Your task to perform on an android device: turn on javascript in the chrome app Image 0: 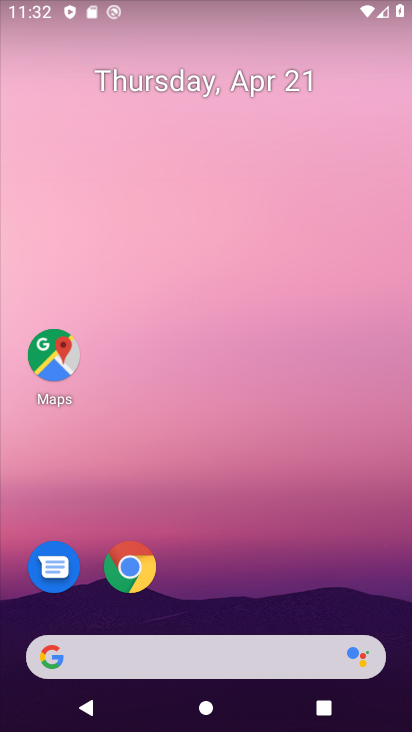
Step 0: click (130, 571)
Your task to perform on an android device: turn on javascript in the chrome app Image 1: 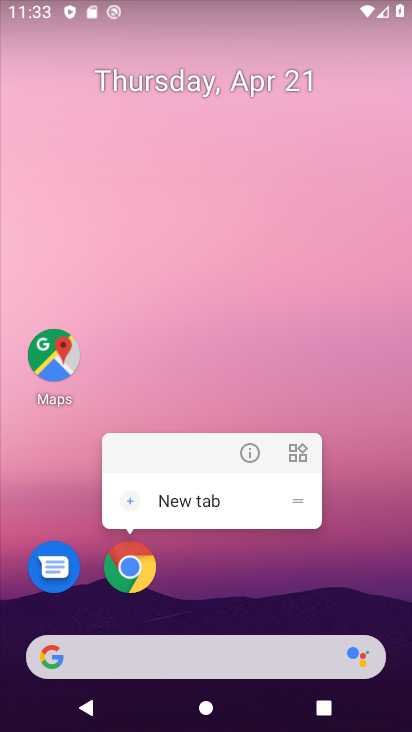
Step 1: click (255, 454)
Your task to perform on an android device: turn on javascript in the chrome app Image 2: 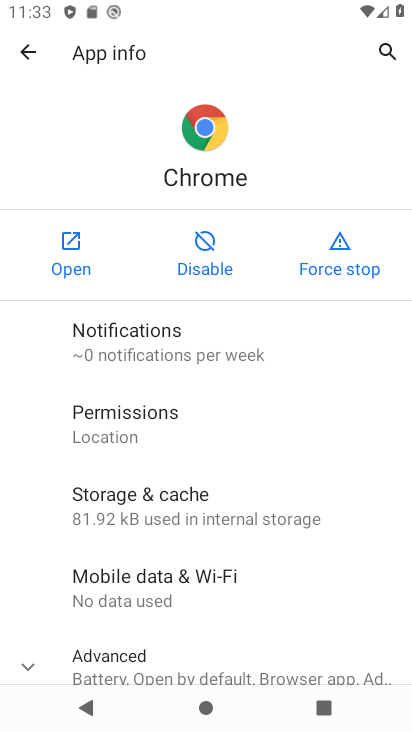
Step 2: click (52, 268)
Your task to perform on an android device: turn on javascript in the chrome app Image 3: 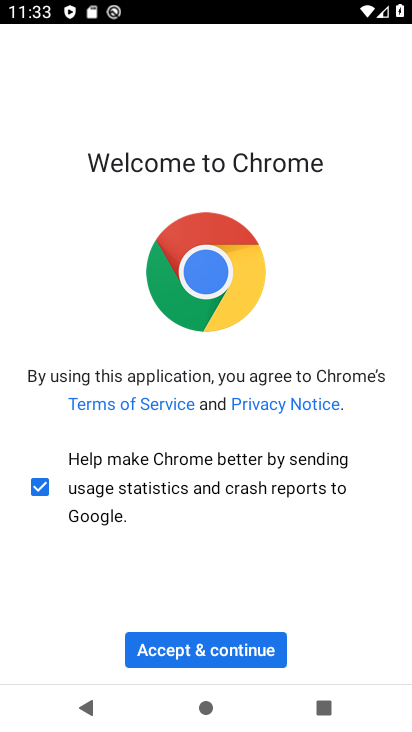
Step 3: click (248, 646)
Your task to perform on an android device: turn on javascript in the chrome app Image 4: 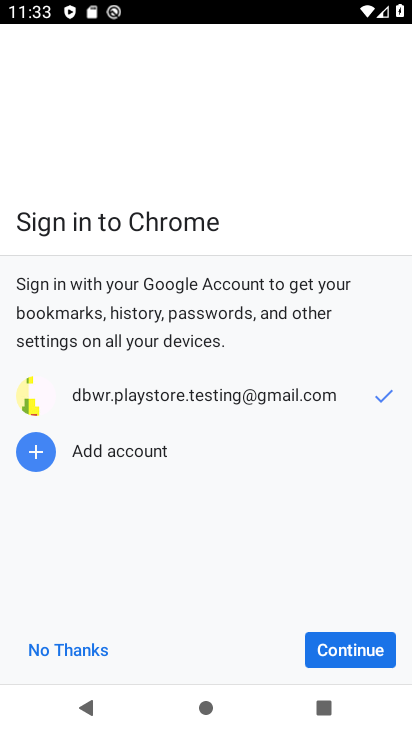
Step 4: click (342, 646)
Your task to perform on an android device: turn on javascript in the chrome app Image 5: 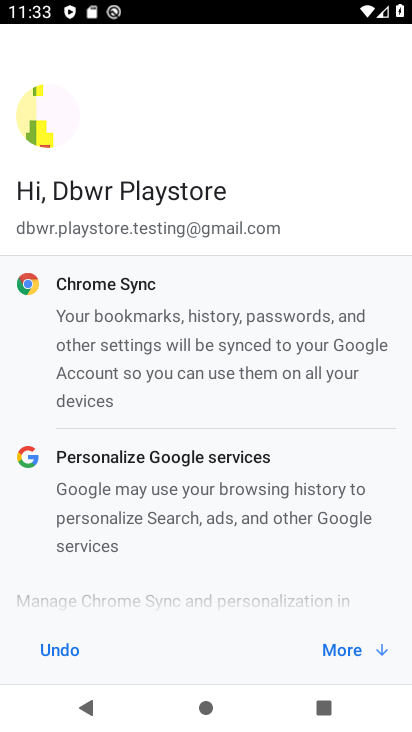
Step 5: click (358, 639)
Your task to perform on an android device: turn on javascript in the chrome app Image 6: 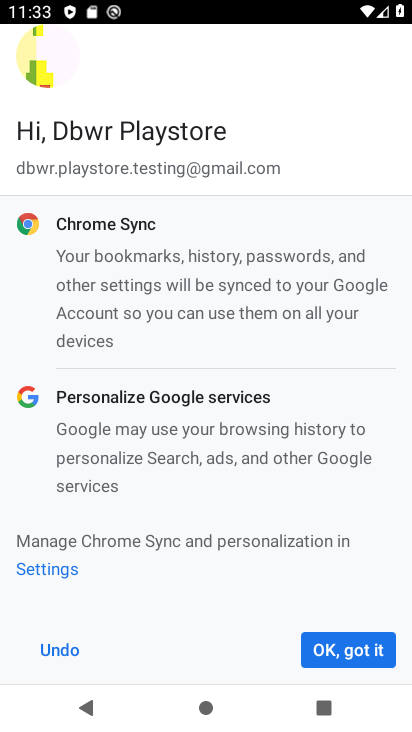
Step 6: click (366, 647)
Your task to perform on an android device: turn on javascript in the chrome app Image 7: 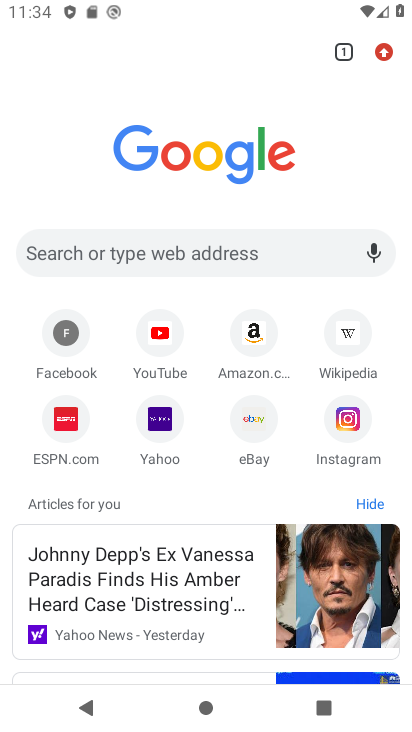
Step 7: click (383, 51)
Your task to perform on an android device: turn on javascript in the chrome app Image 8: 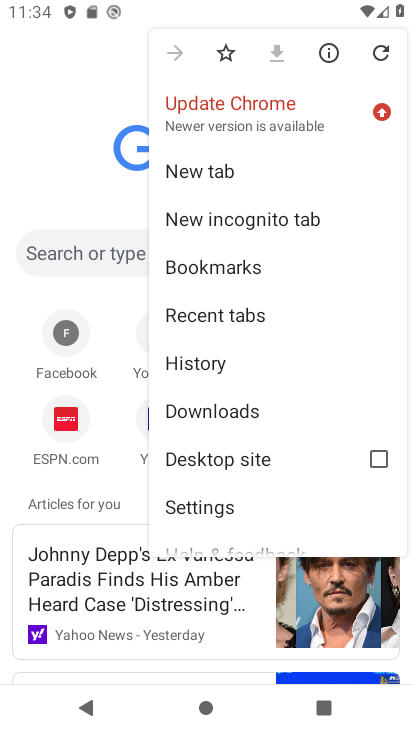
Step 8: click (206, 506)
Your task to perform on an android device: turn on javascript in the chrome app Image 9: 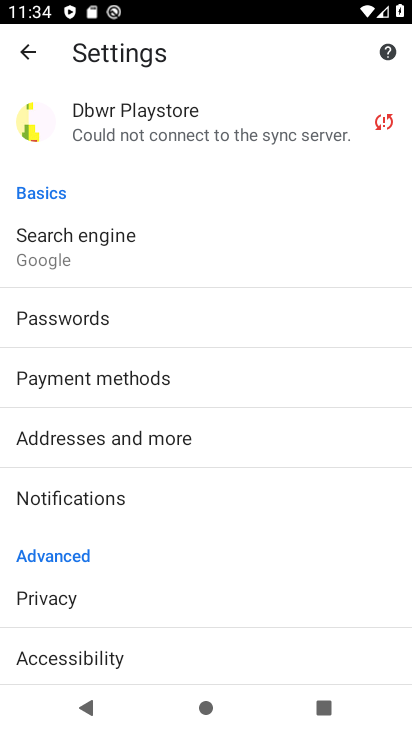
Step 9: drag from (163, 560) to (215, 181)
Your task to perform on an android device: turn on javascript in the chrome app Image 10: 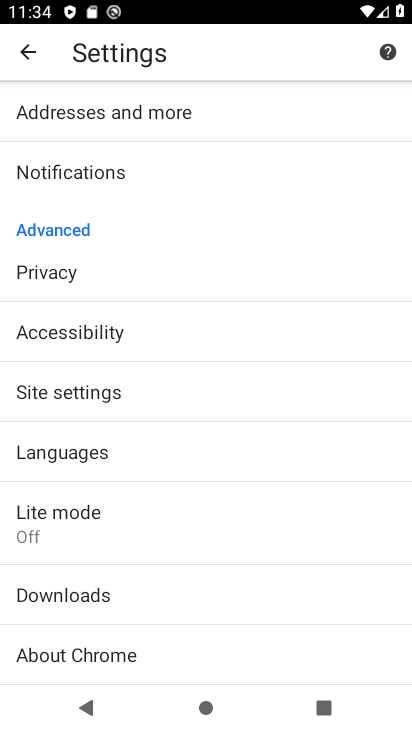
Step 10: click (91, 407)
Your task to perform on an android device: turn on javascript in the chrome app Image 11: 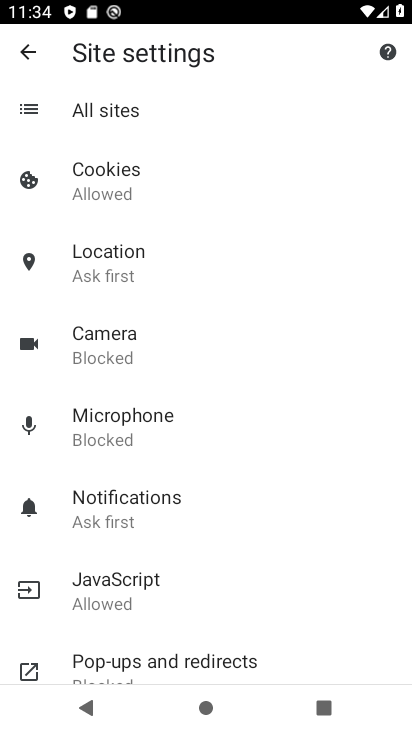
Step 11: click (131, 591)
Your task to perform on an android device: turn on javascript in the chrome app Image 12: 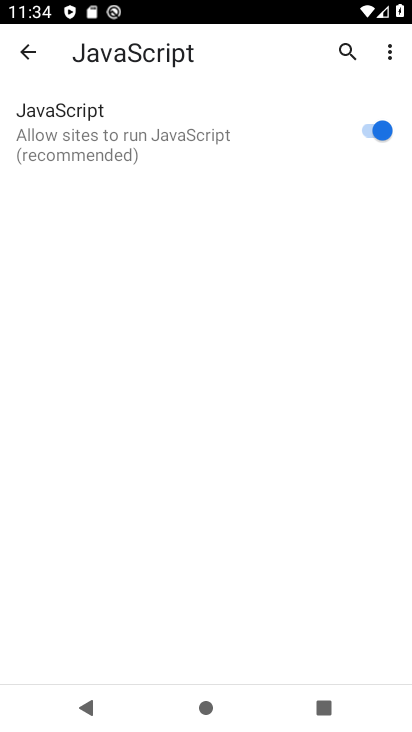
Step 12: task complete